Your task to perform on an android device: Add usb-a to usb-b to the cart on bestbuy Image 0: 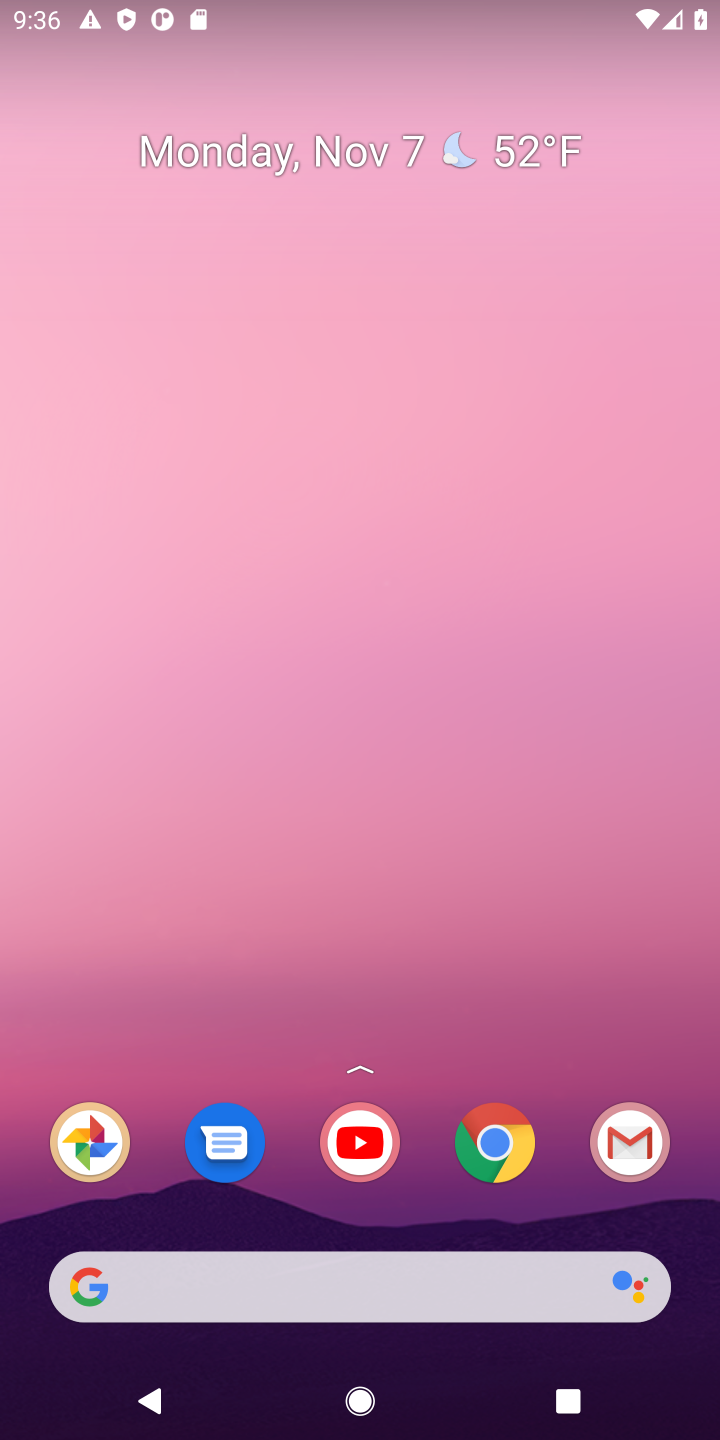
Step 0: press home button
Your task to perform on an android device: Add usb-a to usb-b to the cart on bestbuy Image 1: 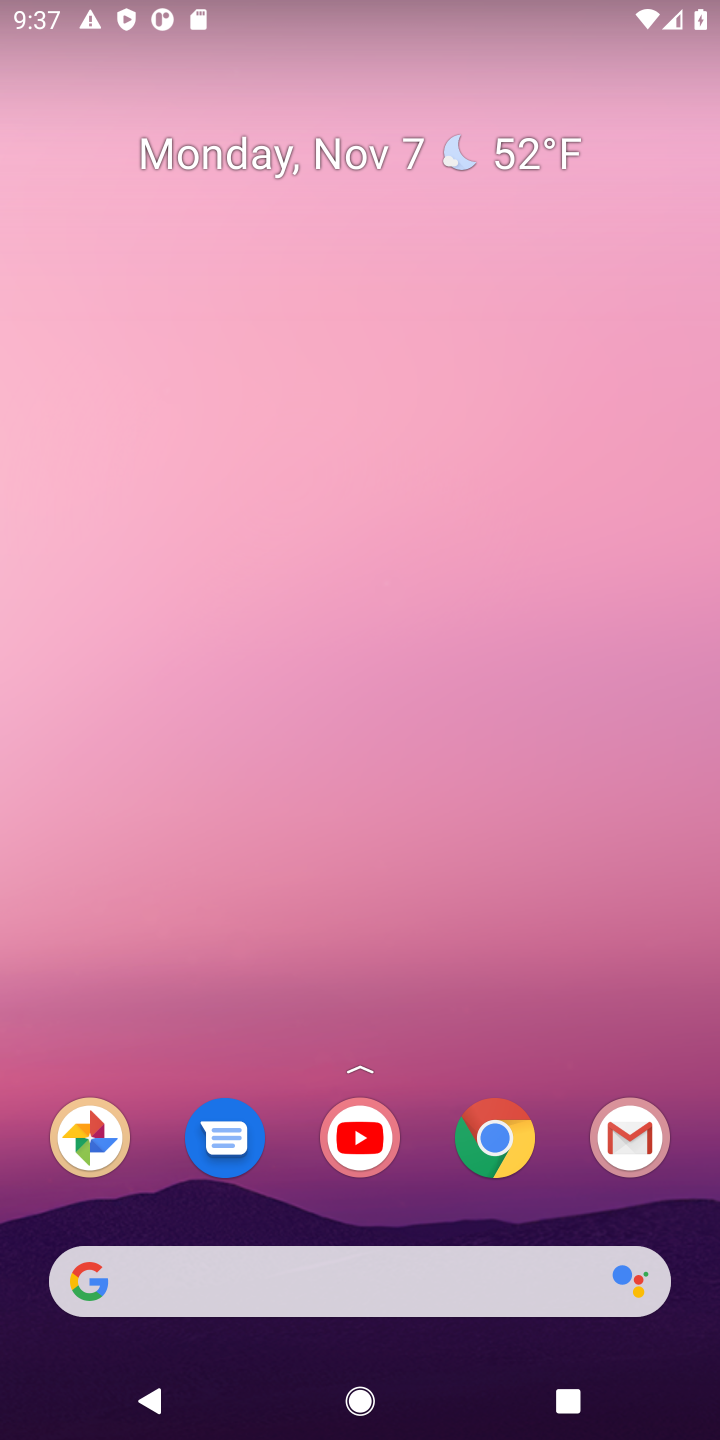
Step 1: click (466, 1431)
Your task to perform on an android device: Add usb-a to usb-b to the cart on bestbuy Image 2: 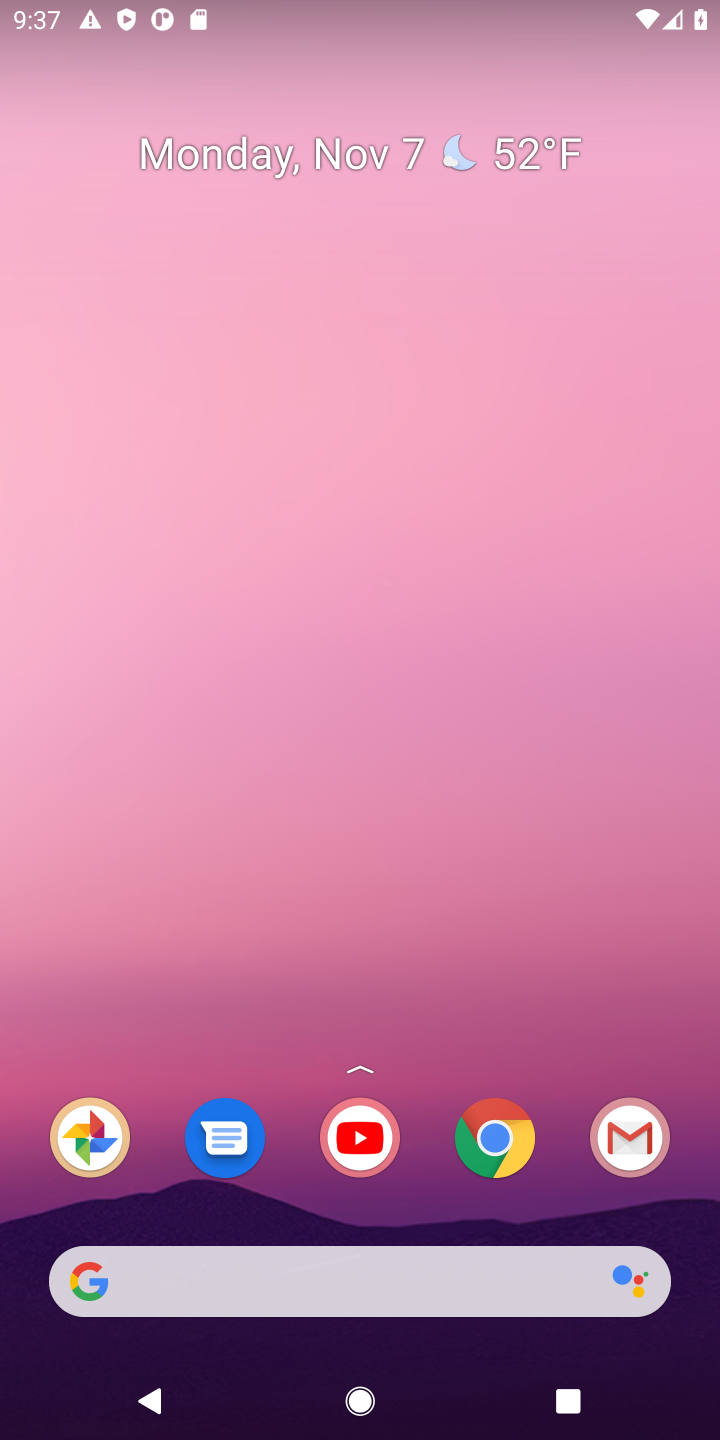
Step 2: click (328, 237)
Your task to perform on an android device: Add usb-a to usb-b to the cart on bestbuy Image 3: 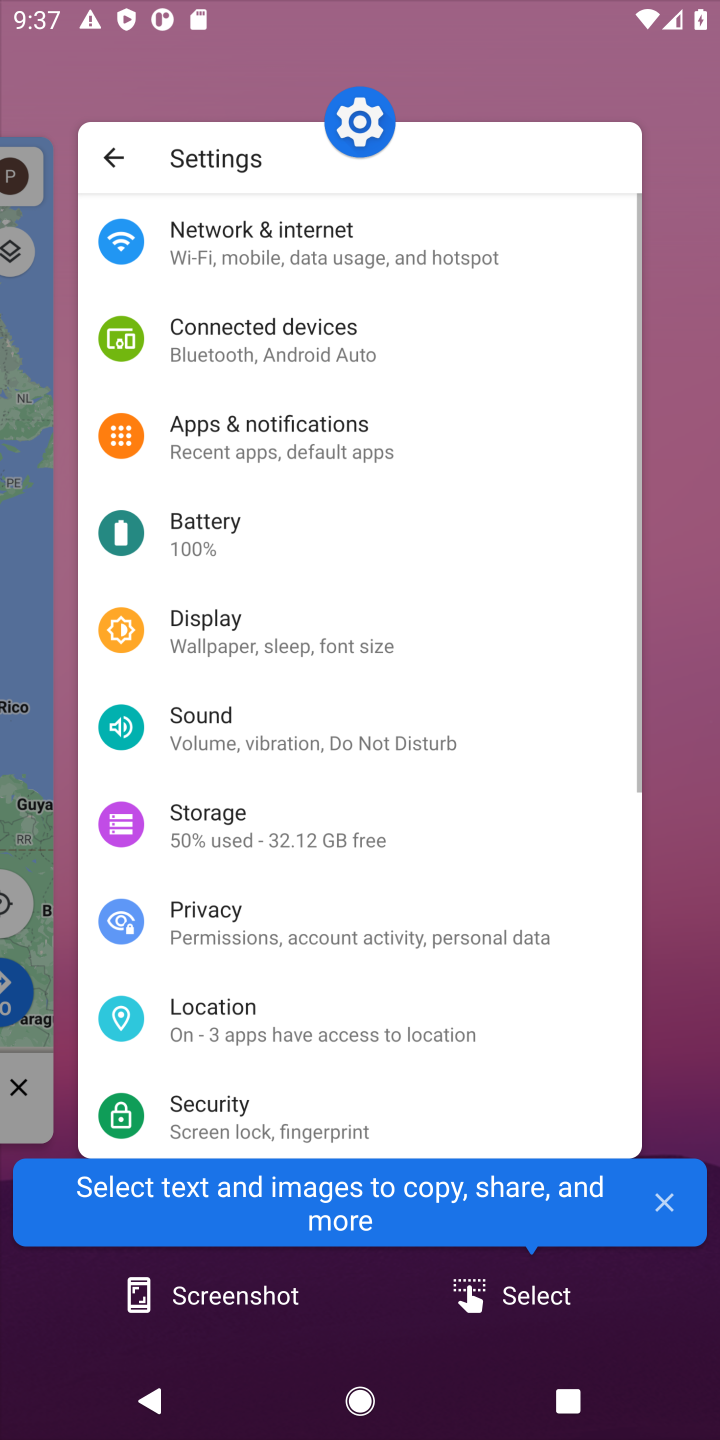
Step 3: press home button
Your task to perform on an android device: Add usb-a to usb-b to the cart on bestbuy Image 4: 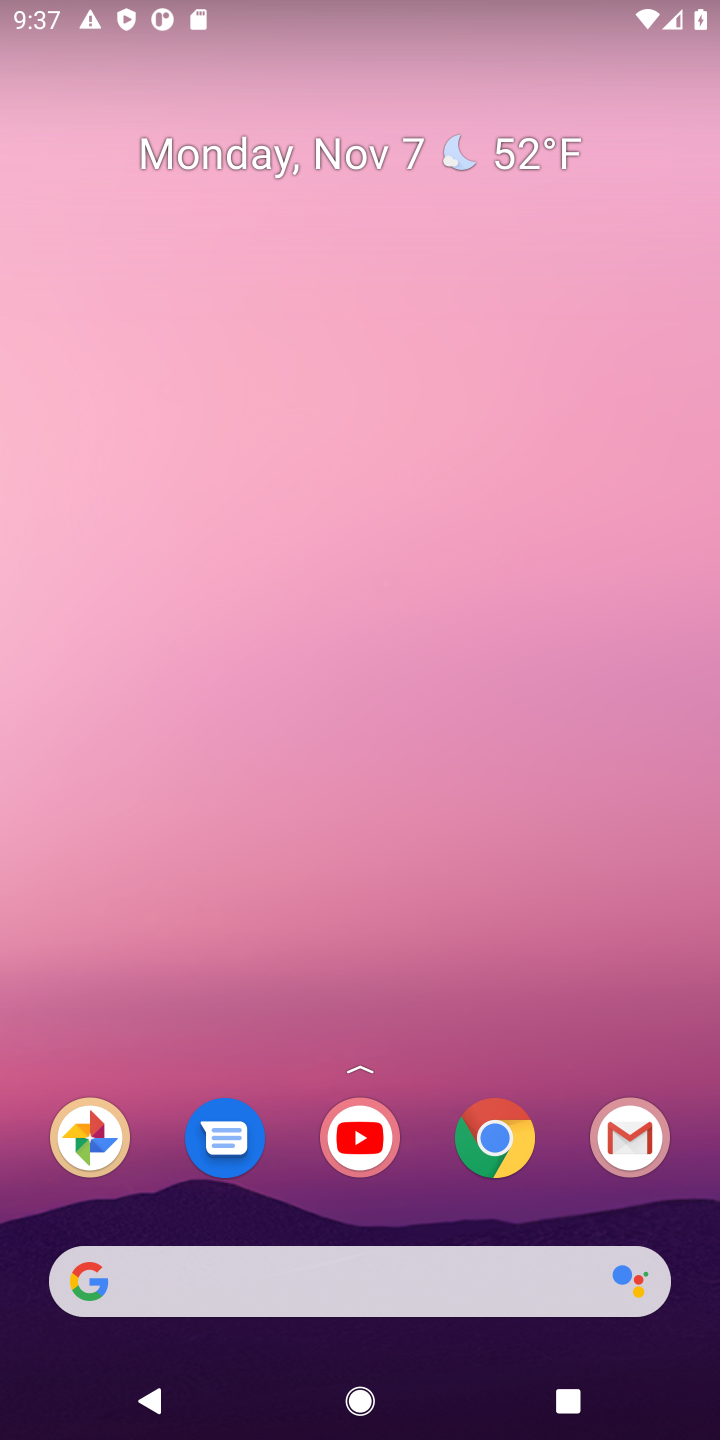
Step 4: drag from (302, 1214) to (327, 194)
Your task to perform on an android device: Add usb-a to usb-b to the cart on bestbuy Image 5: 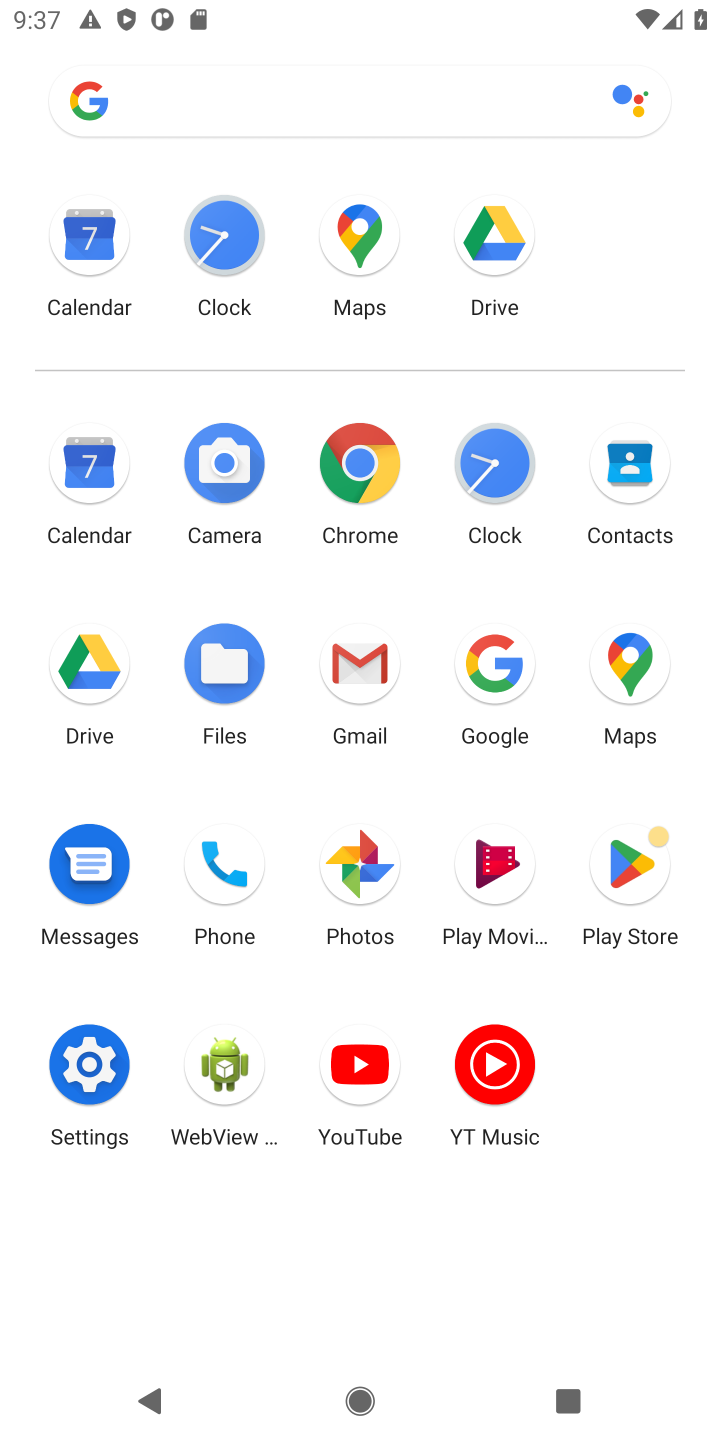
Step 5: click (367, 460)
Your task to perform on an android device: Add usb-a to usb-b to the cart on bestbuy Image 6: 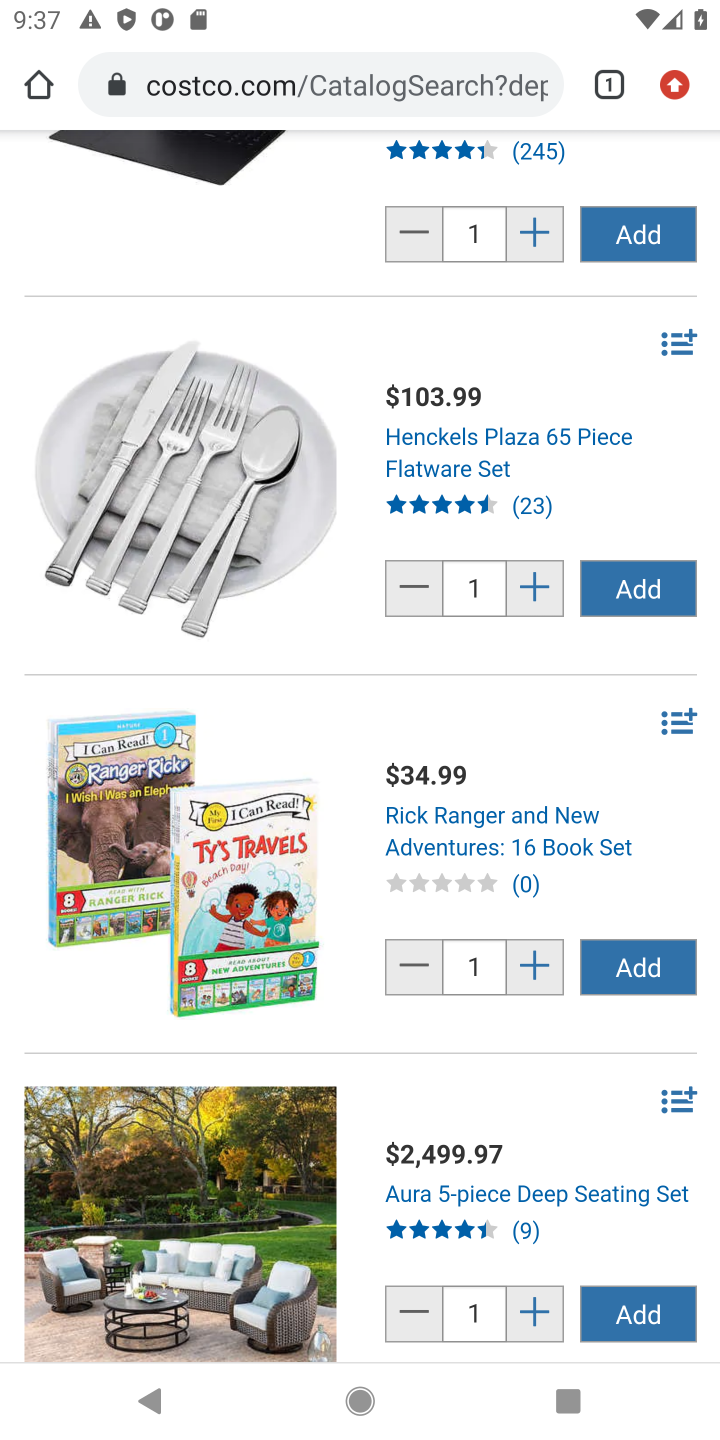
Step 6: click (376, 89)
Your task to perform on an android device: Add usb-a to usb-b to the cart on bestbuy Image 7: 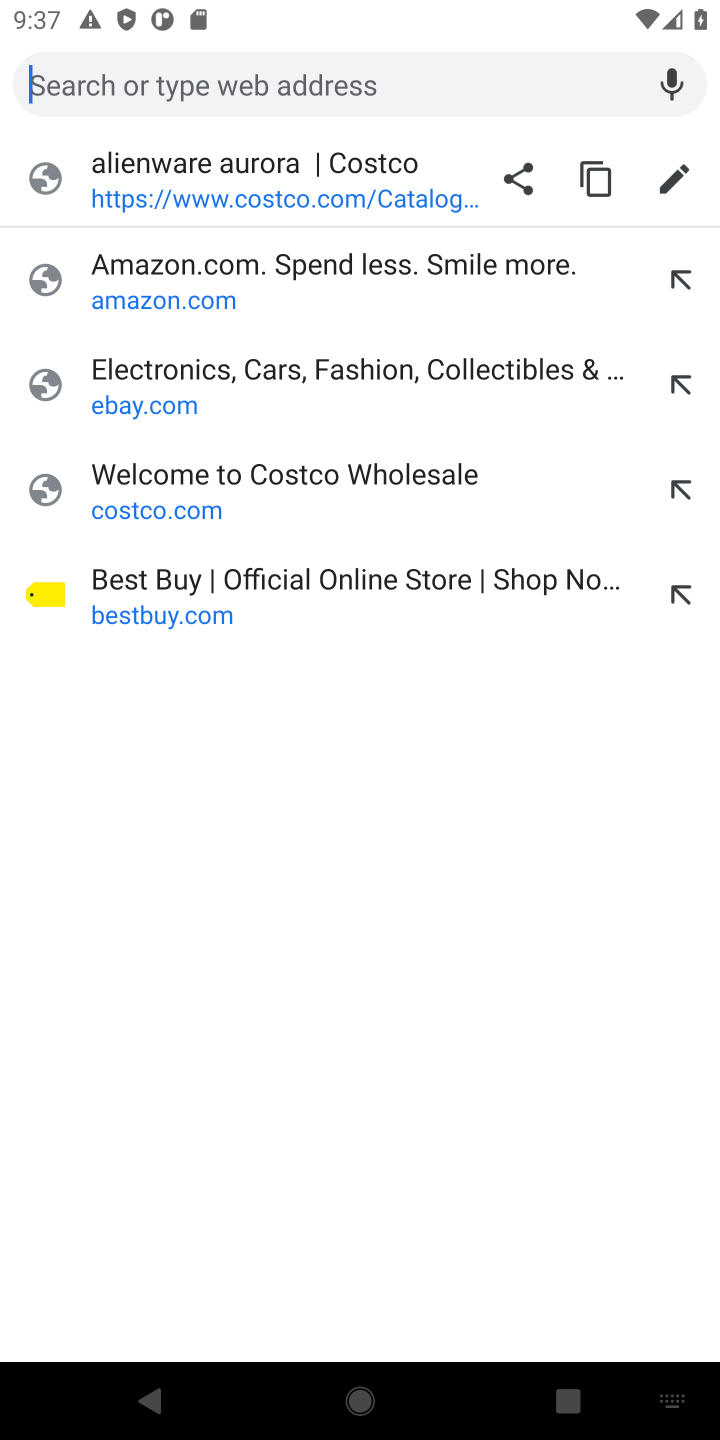
Step 7: type "bestbuy.com"
Your task to perform on an android device: Add usb-a to usb-b to the cart on bestbuy Image 8: 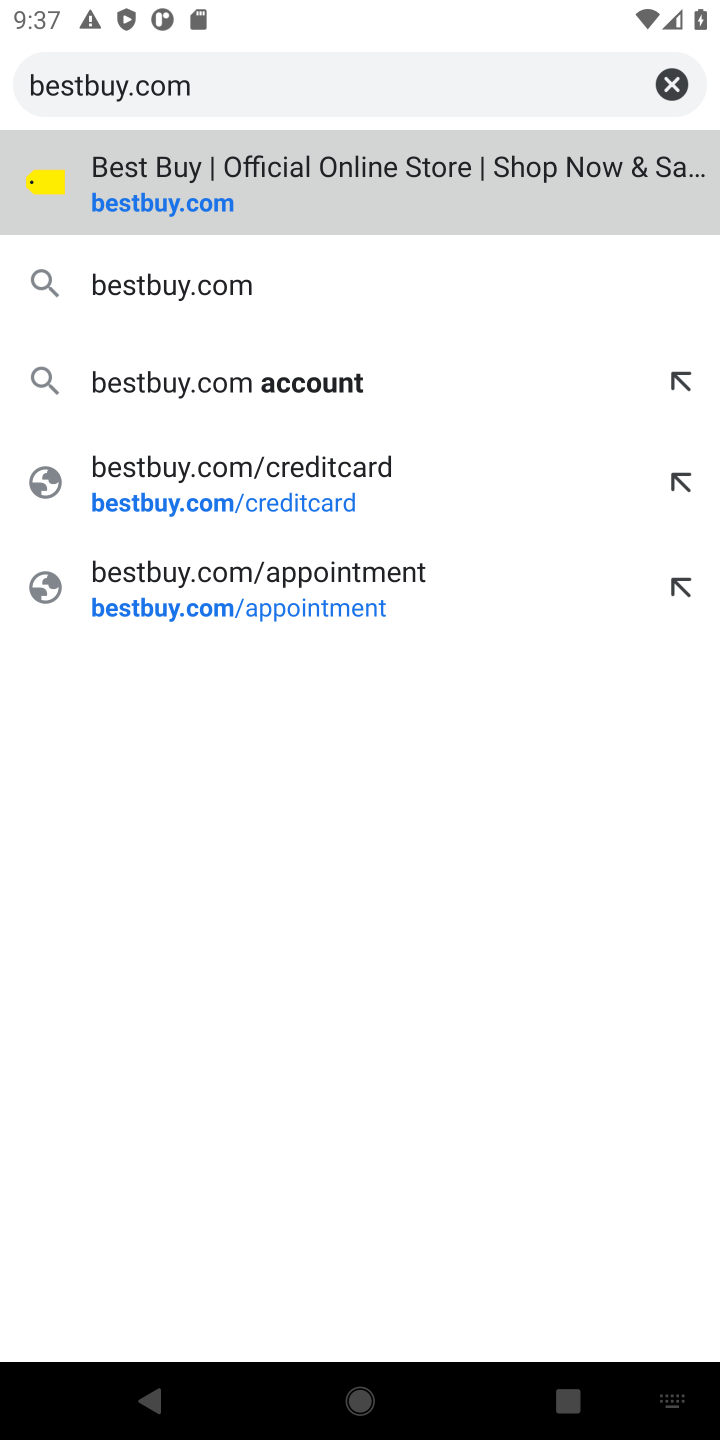
Step 8: press enter
Your task to perform on an android device: Add usb-a to usb-b to the cart on bestbuy Image 9: 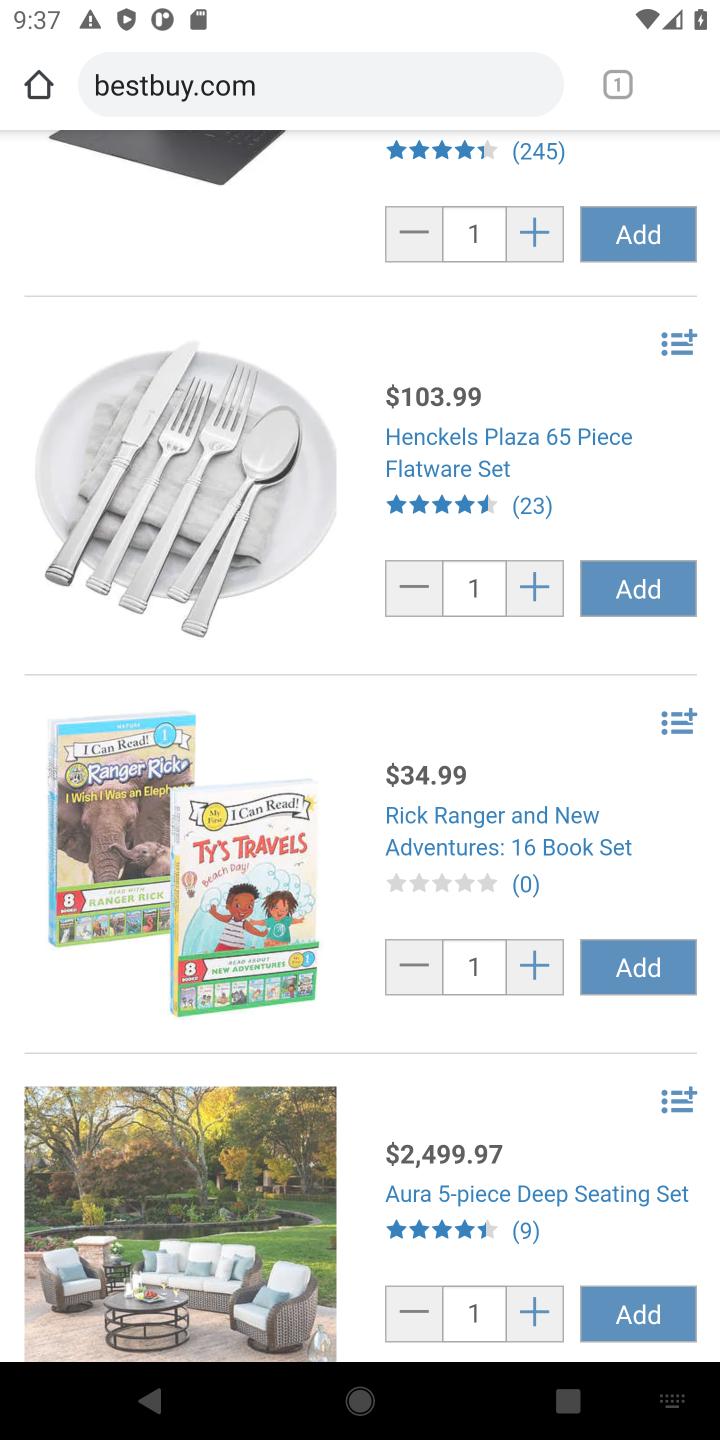
Step 9: press enter
Your task to perform on an android device: Add usb-a to usb-b to the cart on bestbuy Image 10: 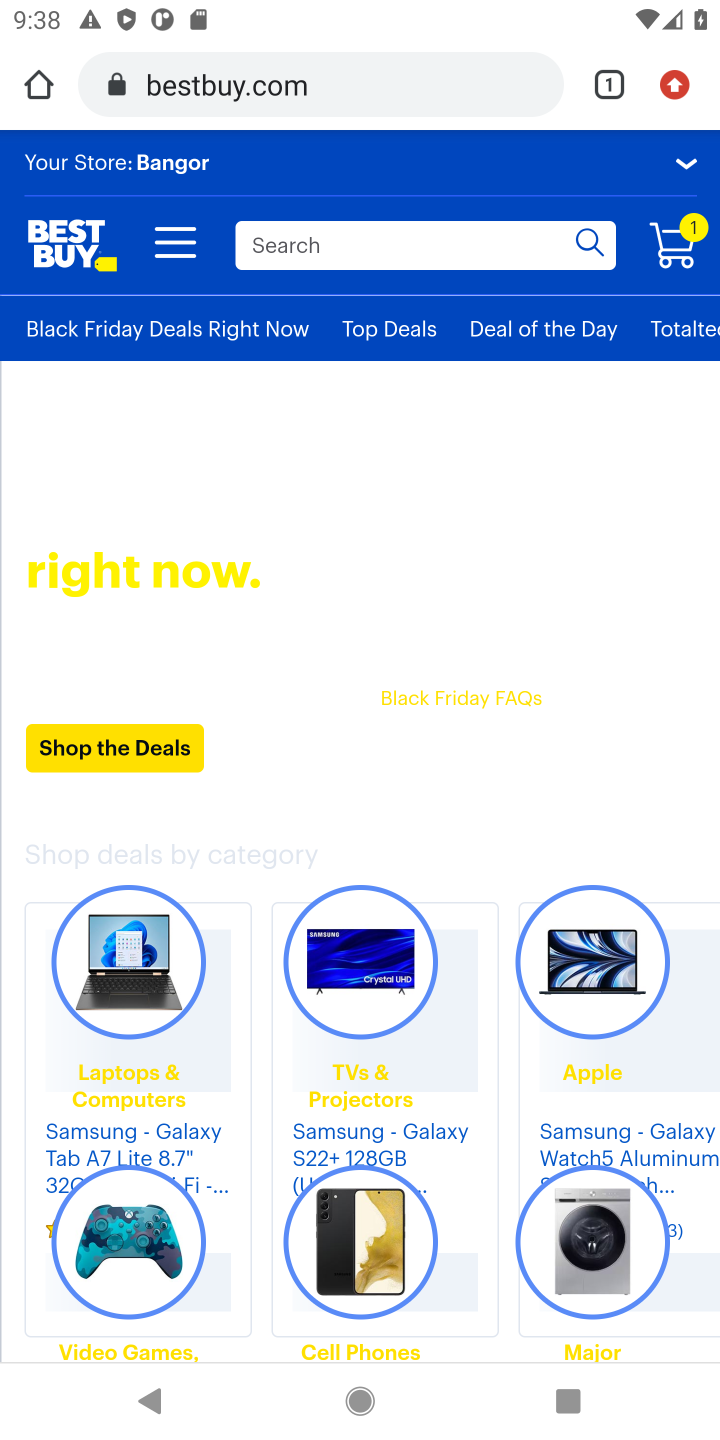
Step 10: click (386, 226)
Your task to perform on an android device: Add usb-a to usb-b to the cart on bestbuy Image 11: 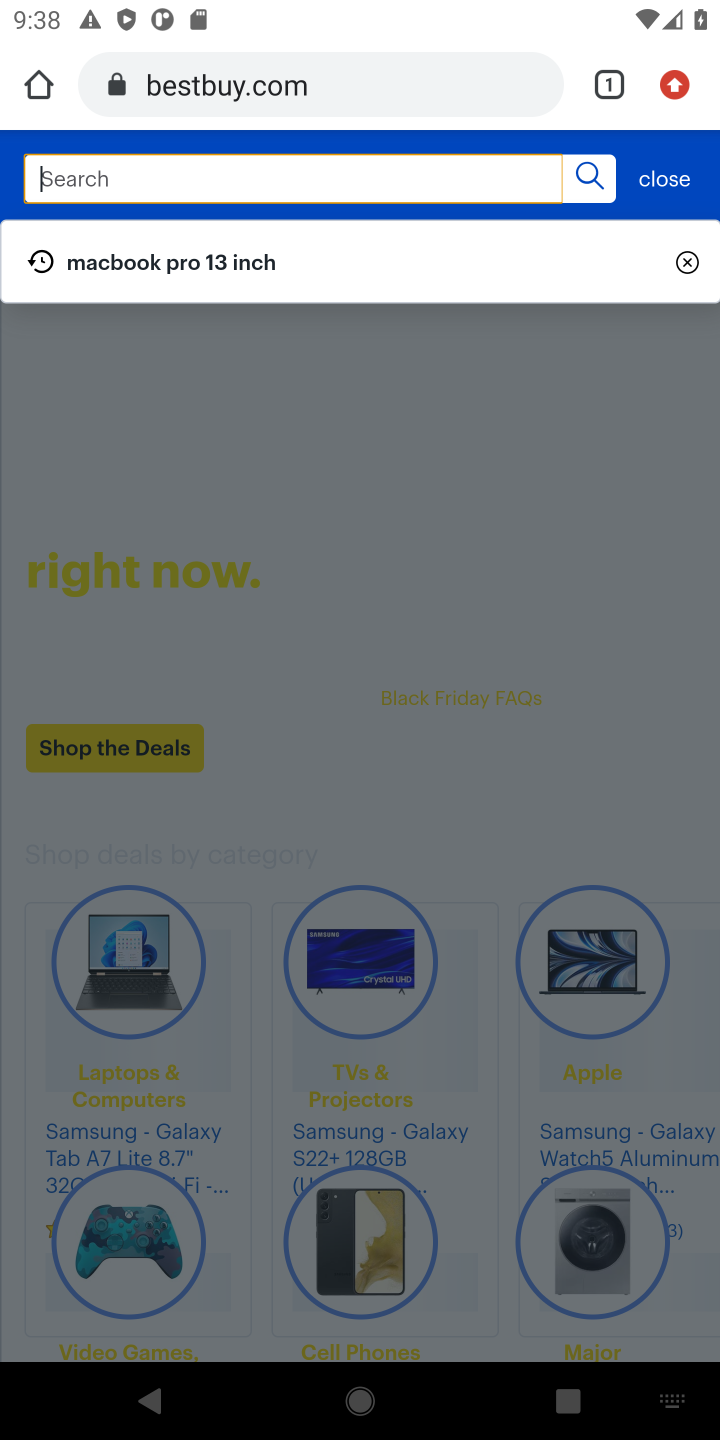
Step 11: type "usb-a to usb-b"
Your task to perform on an android device: Add usb-a to usb-b to the cart on bestbuy Image 12: 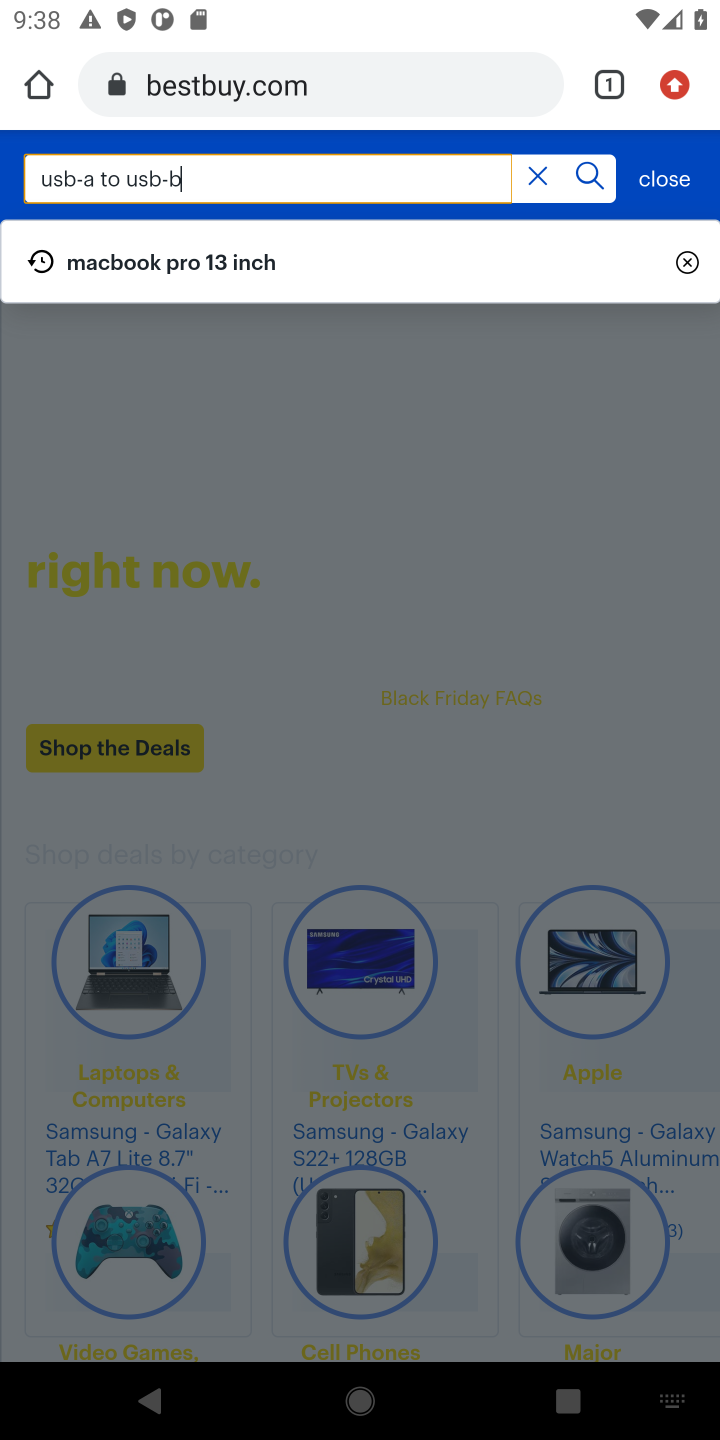
Step 12: press enter
Your task to perform on an android device: Add usb-a to usb-b to the cart on bestbuy Image 13: 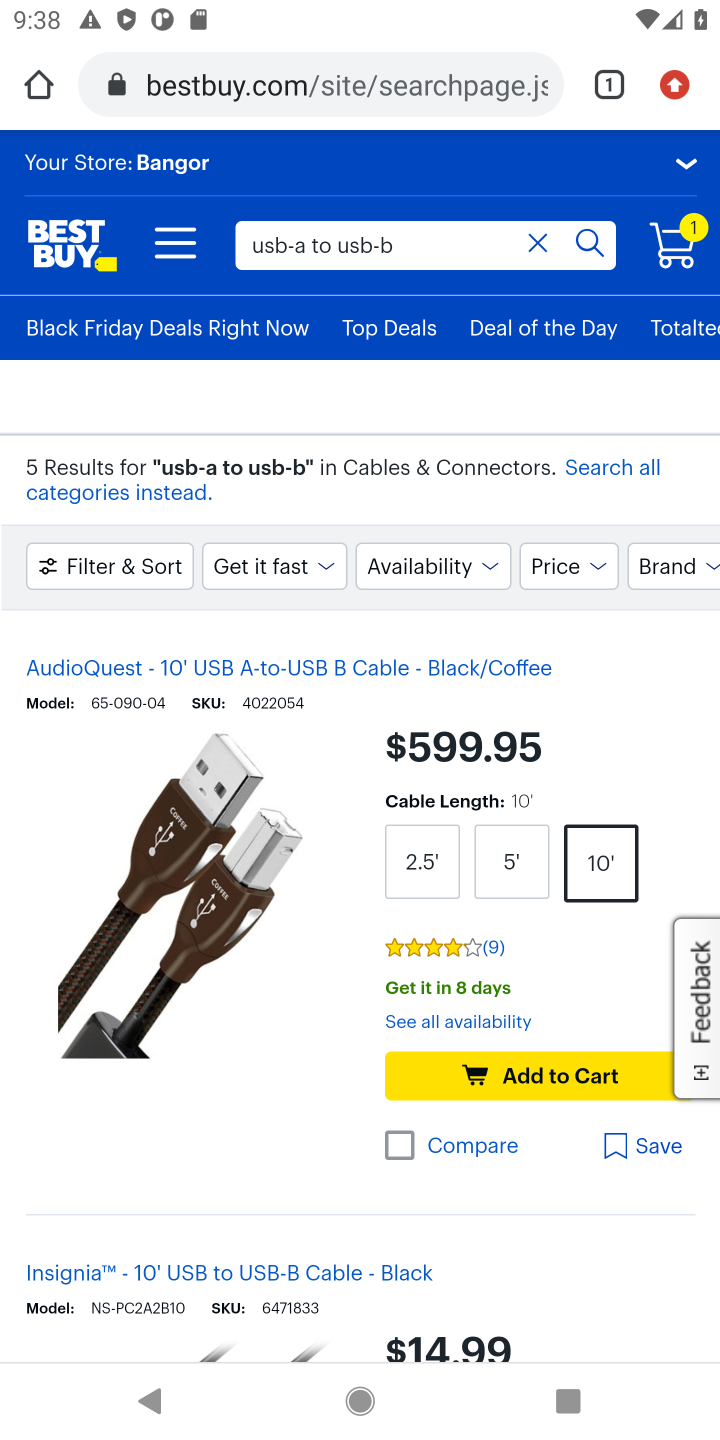
Step 13: click (563, 1077)
Your task to perform on an android device: Add usb-a to usb-b to the cart on bestbuy Image 14: 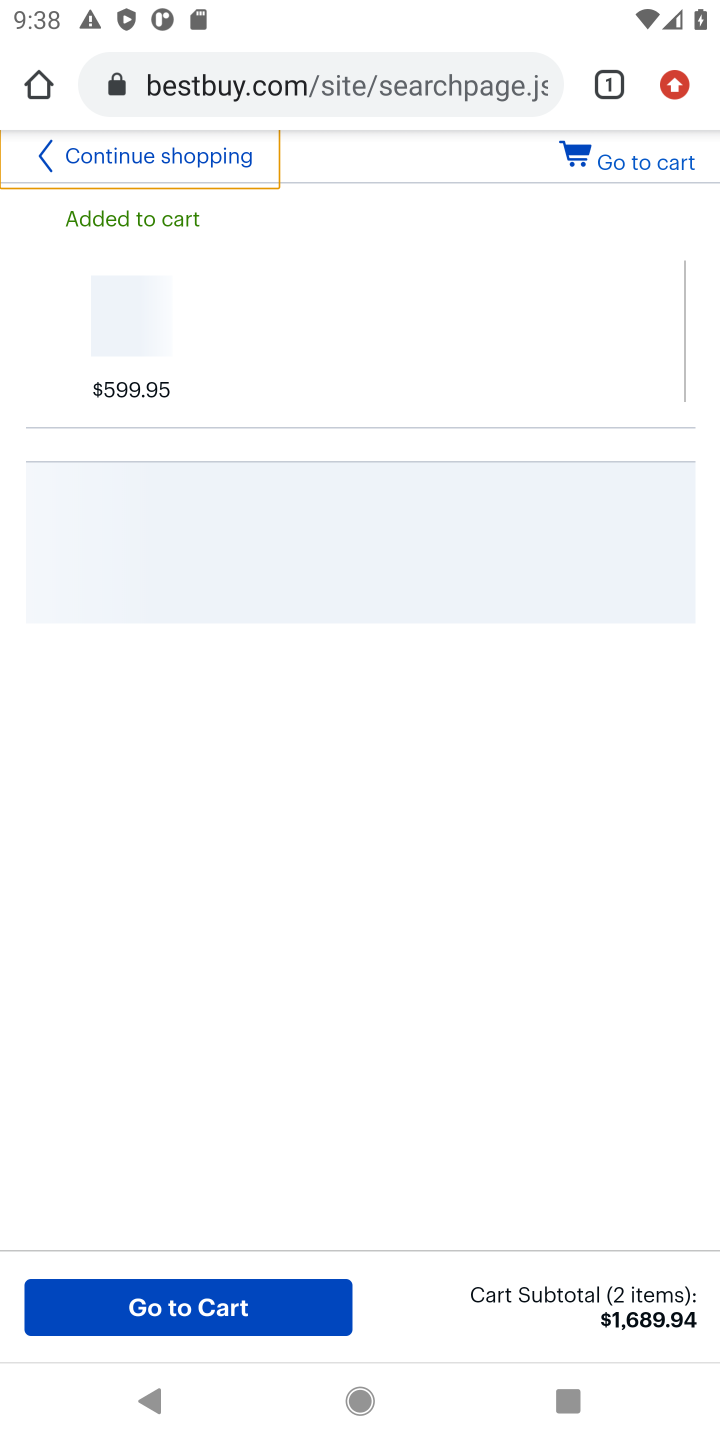
Step 14: task complete